Your task to perform on an android device: choose inbox layout in the gmail app Image 0: 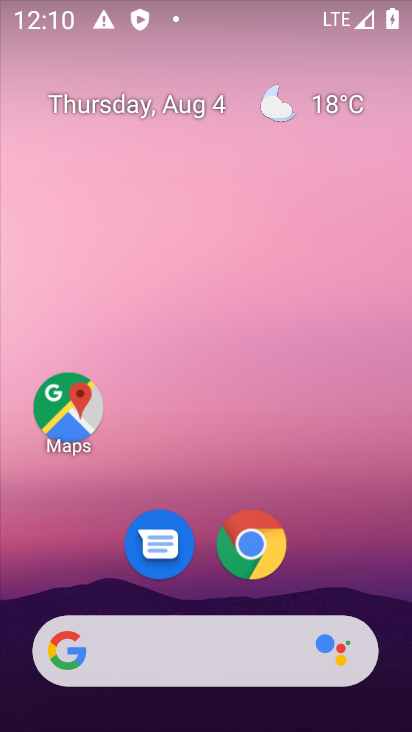
Step 0: drag from (363, 549) to (292, 235)
Your task to perform on an android device: choose inbox layout in the gmail app Image 1: 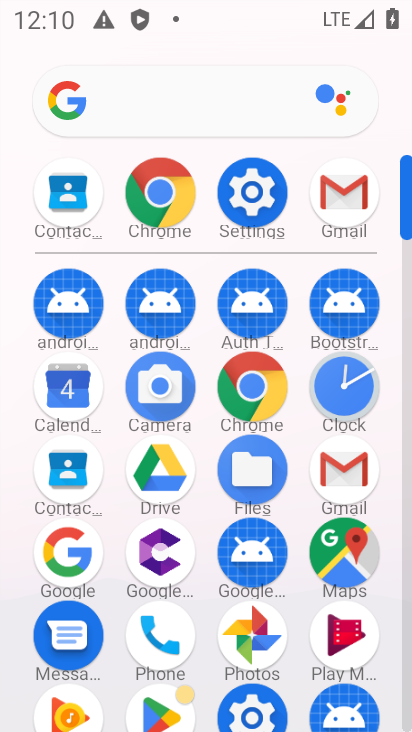
Step 1: click (345, 198)
Your task to perform on an android device: choose inbox layout in the gmail app Image 2: 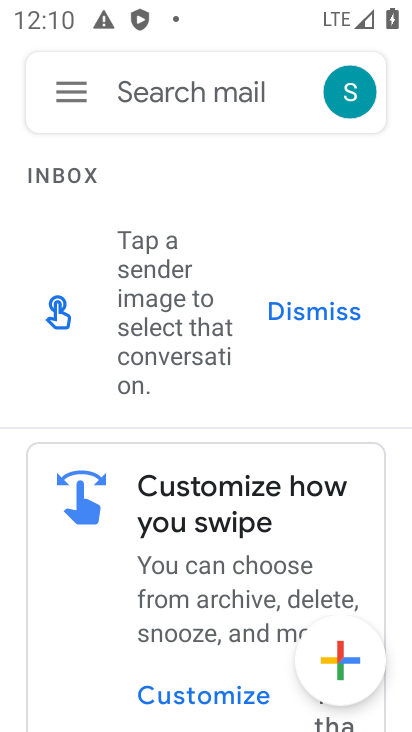
Step 2: click (73, 86)
Your task to perform on an android device: choose inbox layout in the gmail app Image 3: 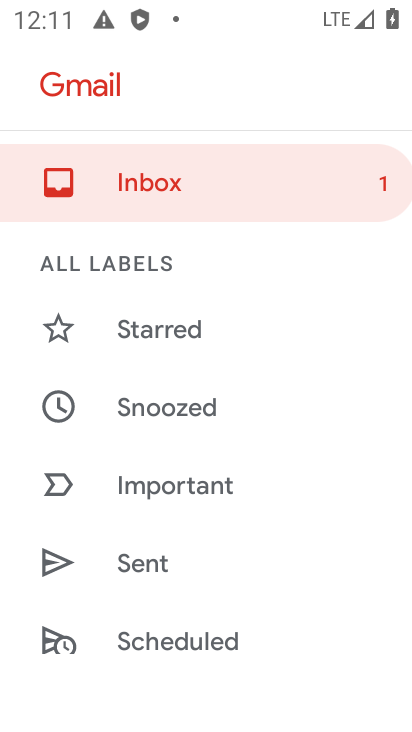
Step 3: drag from (242, 658) to (238, 214)
Your task to perform on an android device: choose inbox layout in the gmail app Image 4: 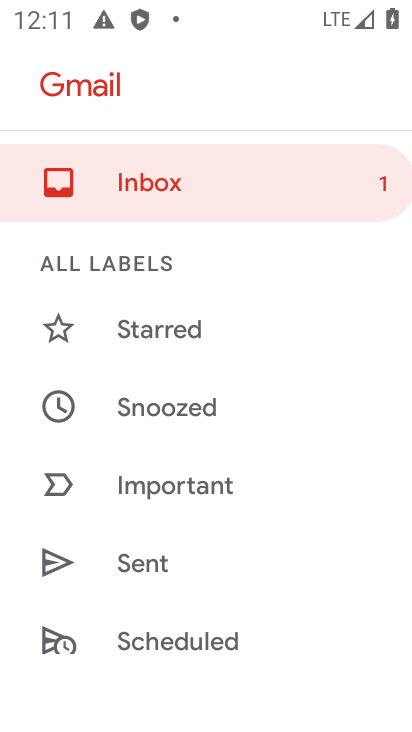
Step 4: drag from (281, 628) to (272, 163)
Your task to perform on an android device: choose inbox layout in the gmail app Image 5: 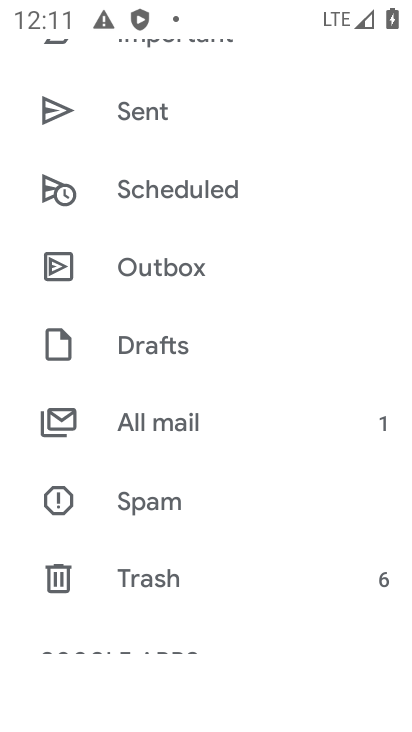
Step 5: drag from (242, 616) to (273, 161)
Your task to perform on an android device: choose inbox layout in the gmail app Image 6: 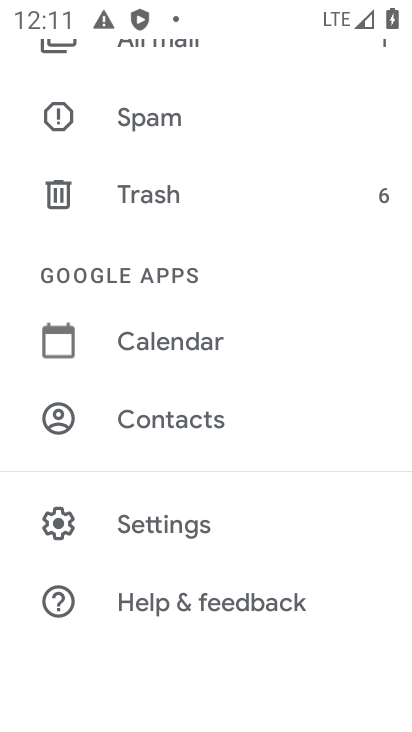
Step 6: click (146, 519)
Your task to perform on an android device: choose inbox layout in the gmail app Image 7: 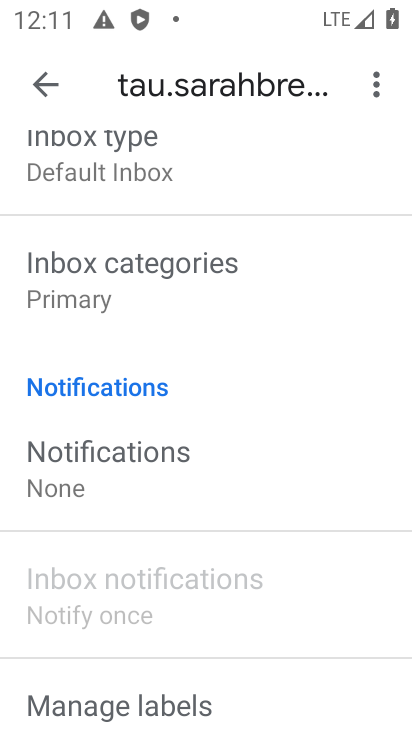
Step 7: click (87, 281)
Your task to perform on an android device: choose inbox layout in the gmail app Image 8: 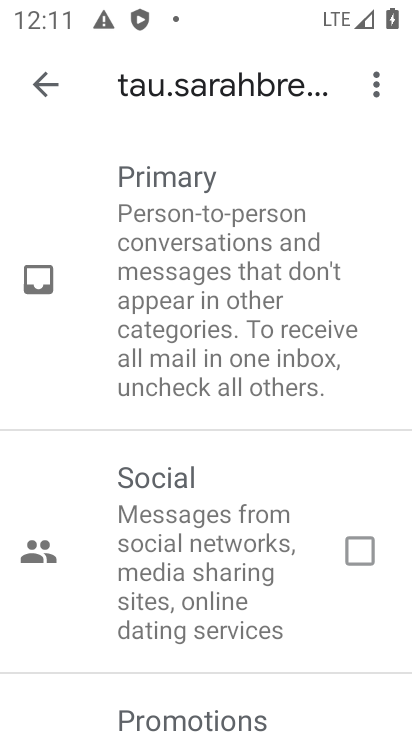
Step 8: click (45, 85)
Your task to perform on an android device: choose inbox layout in the gmail app Image 9: 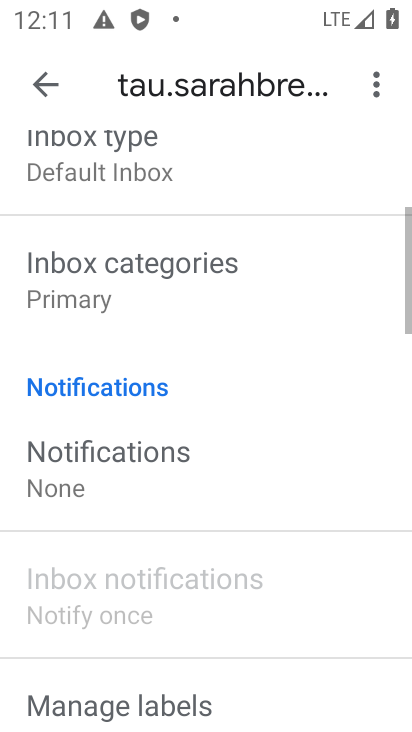
Step 9: click (86, 180)
Your task to perform on an android device: choose inbox layout in the gmail app Image 10: 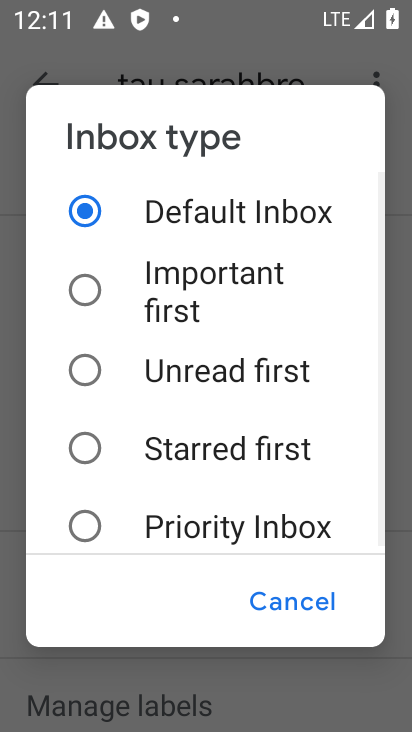
Step 10: click (79, 527)
Your task to perform on an android device: choose inbox layout in the gmail app Image 11: 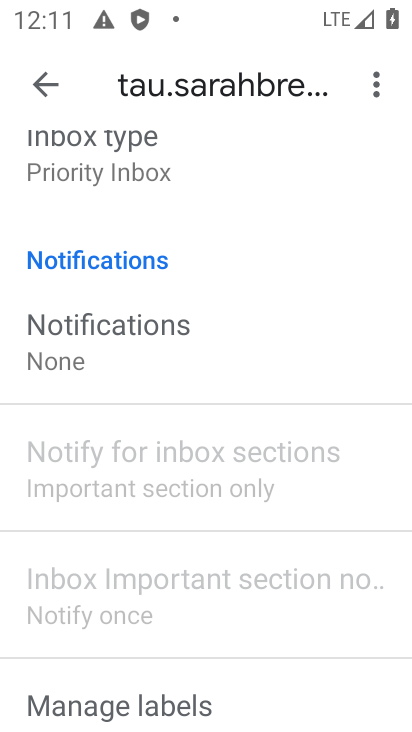
Step 11: task complete